Your task to perform on an android device: change timer sound Image 0: 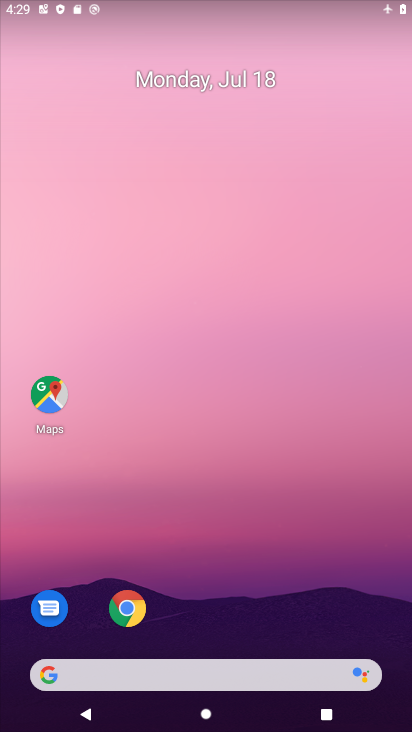
Step 0: drag from (281, 616) to (255, 109)
Your task to perform on an android device: change timer sound Image 1: 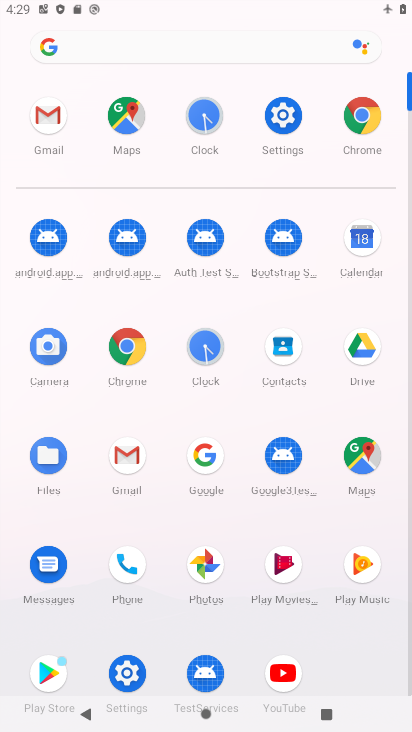
Step 1: click (210, 358)
Your task to perform on an android device: change timer sound Image 2: 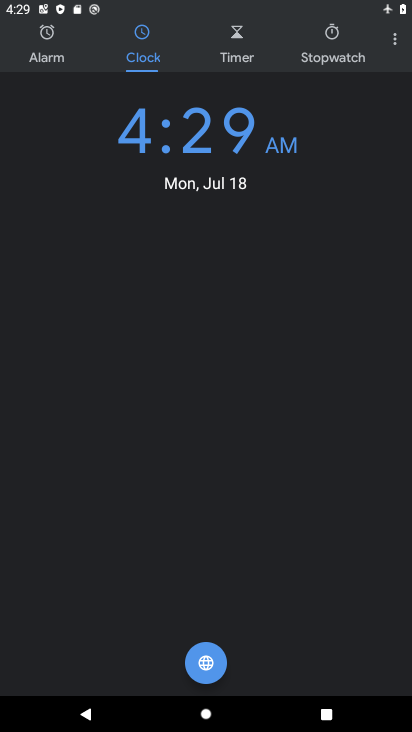
Step 2: click (392, 37)
Your task to perform on an android device: change timer sound Image 3: 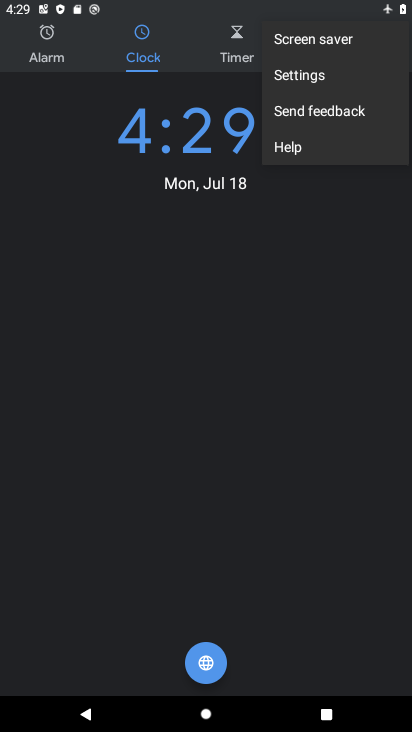
Step 3: click (328, 73)
Your task to perform on an android device: change timer sound Image 4: 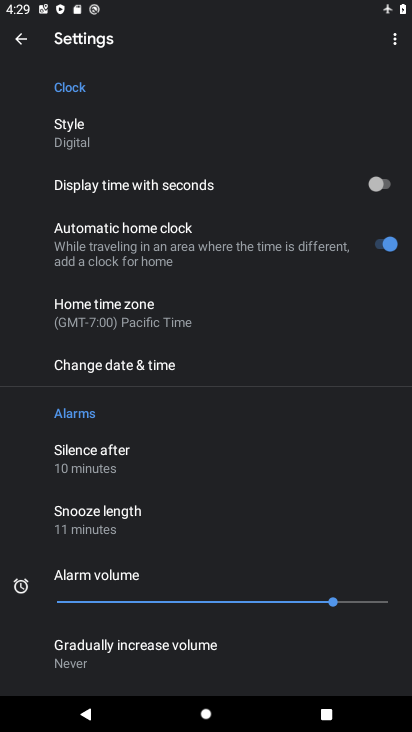
Step 4: drag from (284, 544) to (269, 184)
Your task to perform on an android device: change timer sound Image 5: 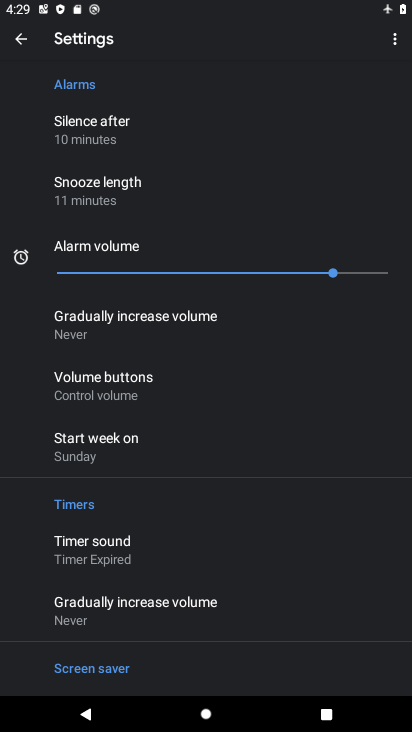
Step 5: click (107, 539)
Your task to perform on an android device: change timer sound Image 6: 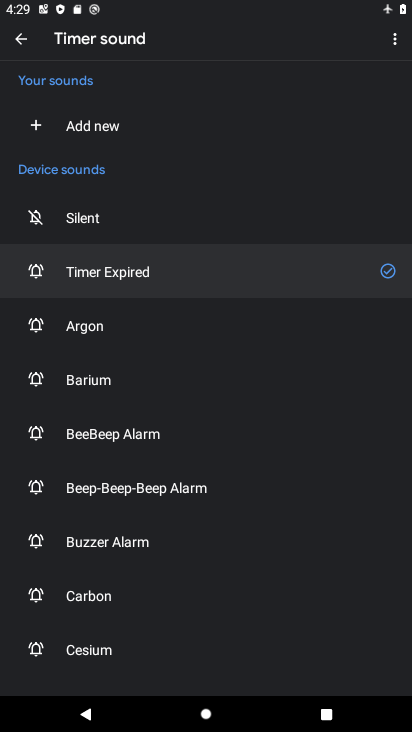
Step 6: click (222, 332)
Your task to perform on an android device: change timer sound Image 7: 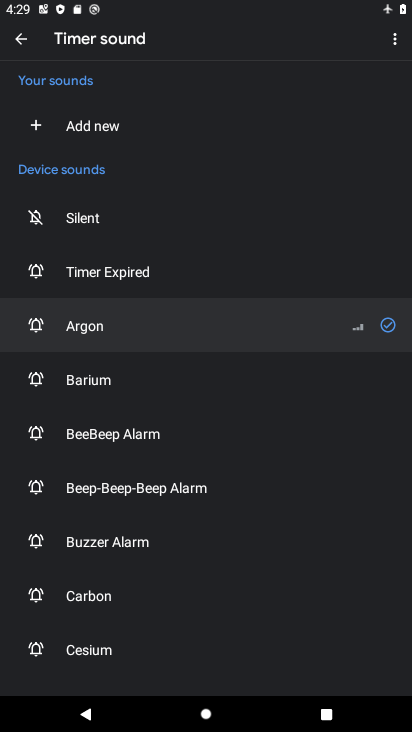
Step 7: task complete